Your task to perform on an android device: What is the recent news? Image 0: 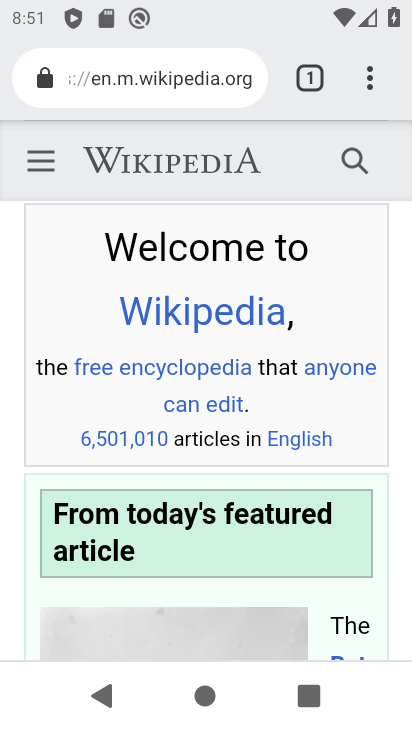
Step 0: press back button
Your task to perform on an android device: What is the recent news? Image 1: 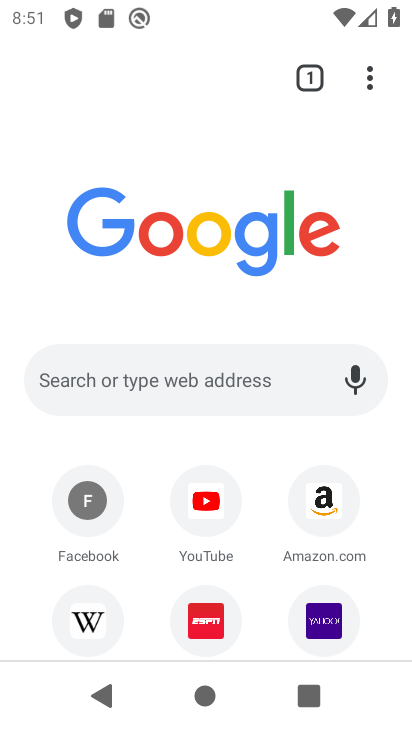
Step 1: click (190, 377)
Your task to perform on an android device: What is the recent news? Image 2: 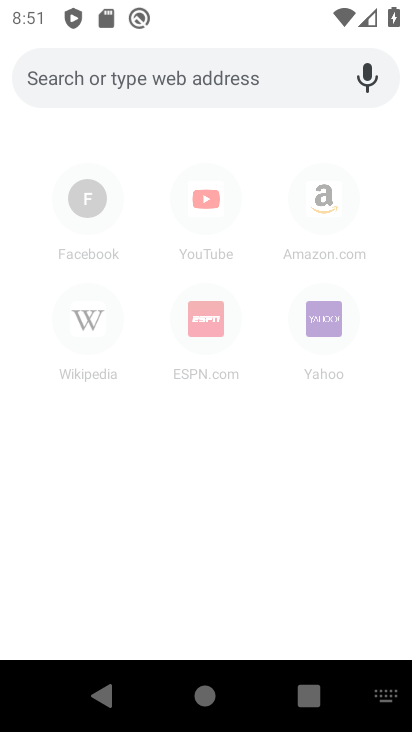
Step 2: press back button
Your task to perform on an android device: What is the recent news? Image 3: 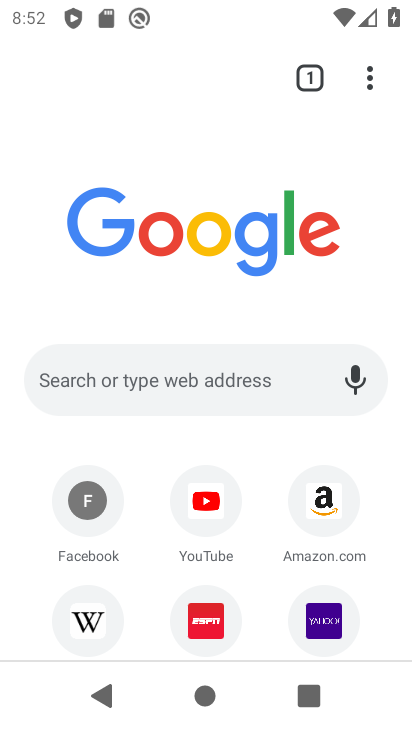
Step 3: click (152, 383)
Your task to perform on an android device: What is the recent news? Image 4: 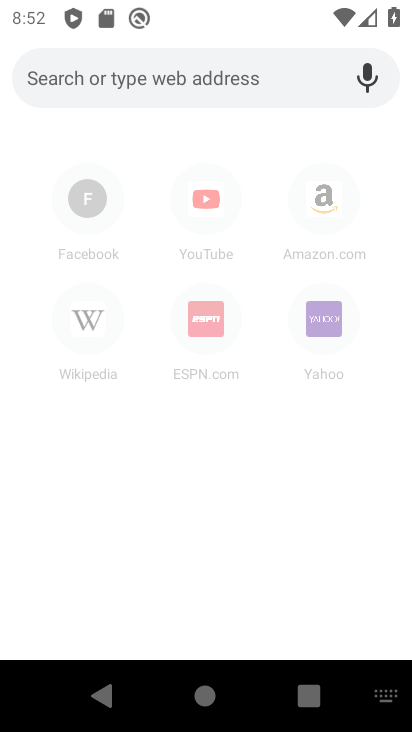
Step 4: type "recent news"
Your task to perform on an android device: What is the recent news? Image 5: 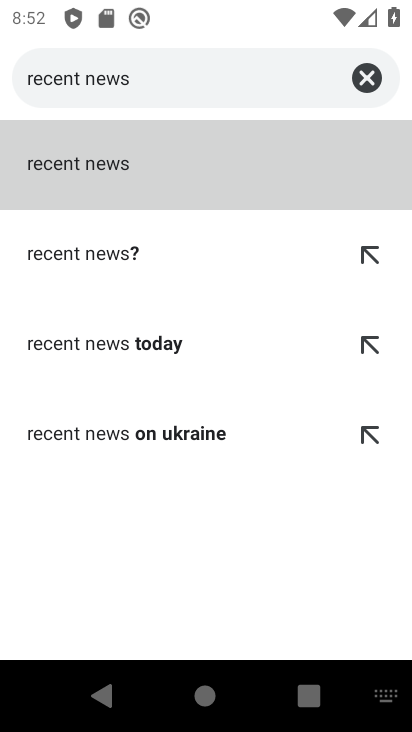
Step 5: click (117, 254)
Your task to perform on an android device: What is the recent news? Image 6: 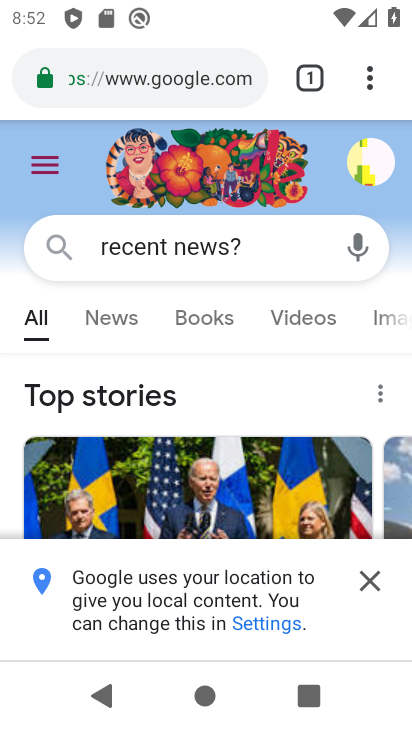
Step 6: task complete